Your task to perform on an android device: open a bookmark in the chrome app Image 0: 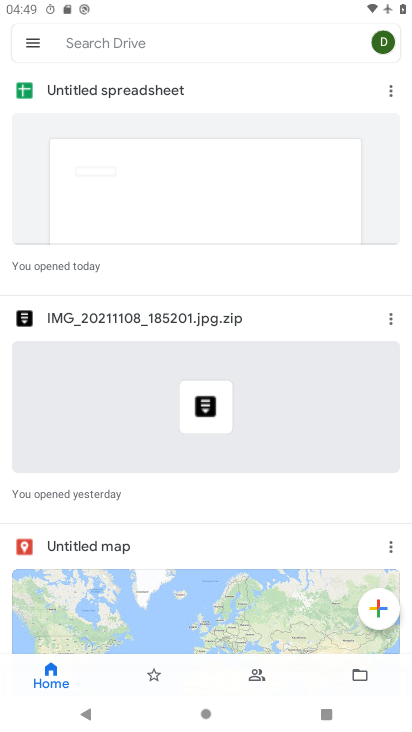
Step 0: press home button
Your task to perform on an android device: open a bookmark in the chrome app Image 1: 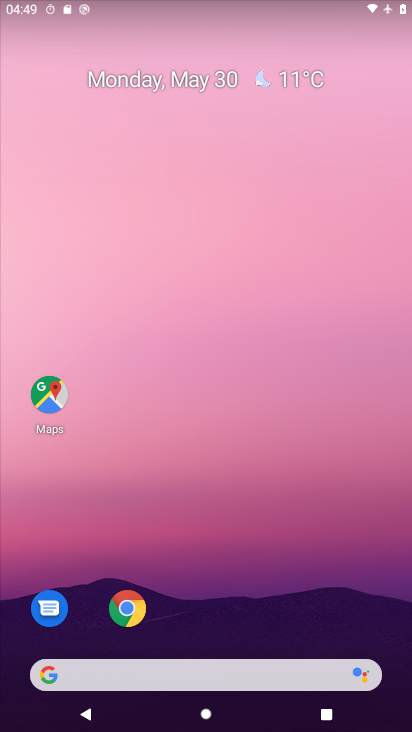
Step 1: click (136, 608)
Your task to perform on an android device: open a bookmark in the chrome app Image 2: 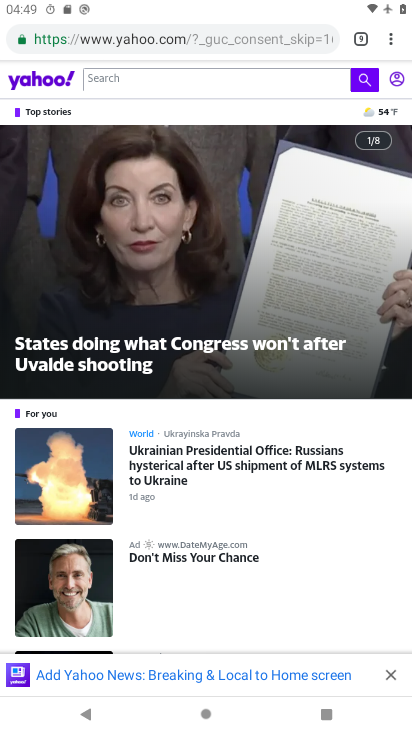
Step 2: click (394, 40)
Your task to perform on an android device: open a bookmark in the chrome app Image 3: 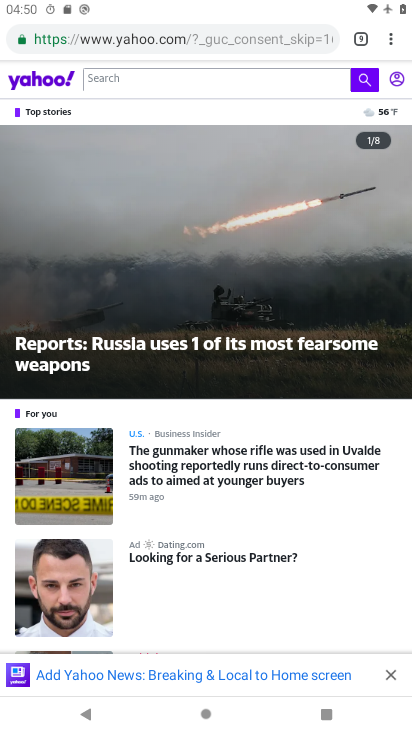
Step 3: click (392, 45)
Your task to perform on an android device: open a bookmark in the chrome app Image 4: 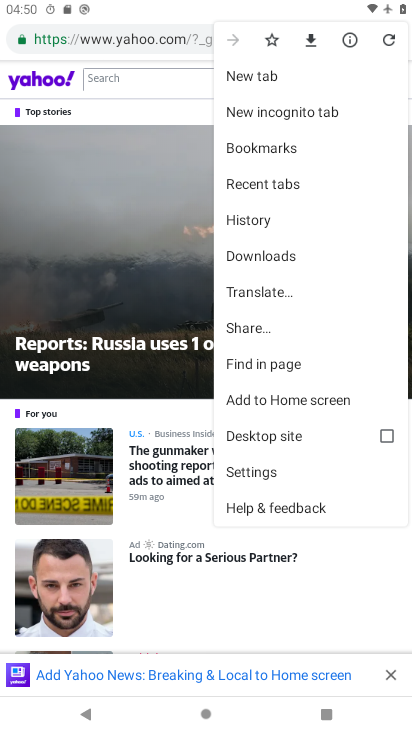
Step 4: click (284, 142)
Your task to perform on an android device: open a bookmark in the chrome app Image 5: 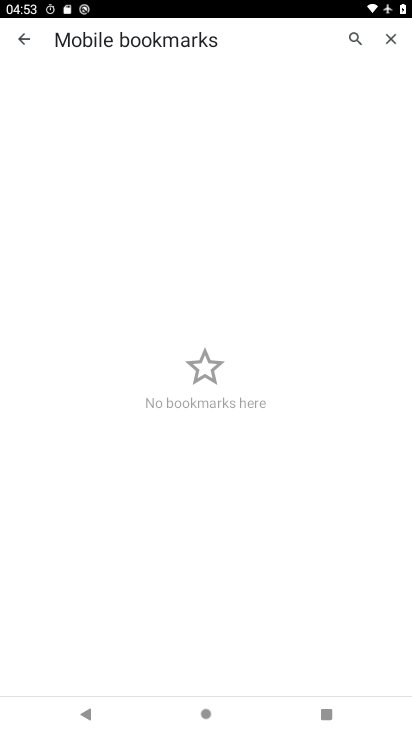
Step 5: task complete